Your task to perform on an android device: star an email in the gmail app Image 0: 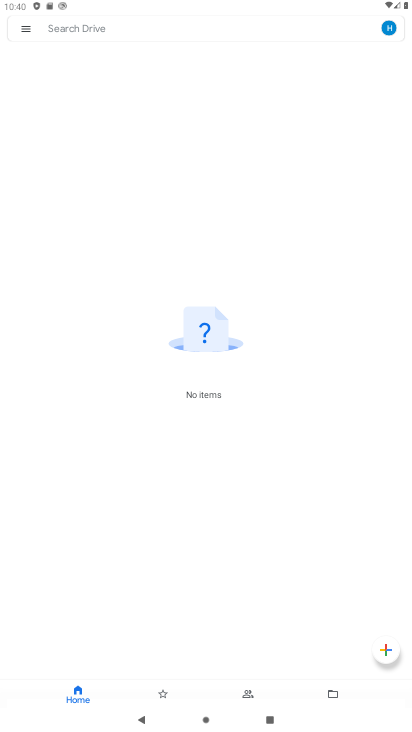
Step 0: press home button
Your task to perform on an android device: star an email in the gmail app Image 1: 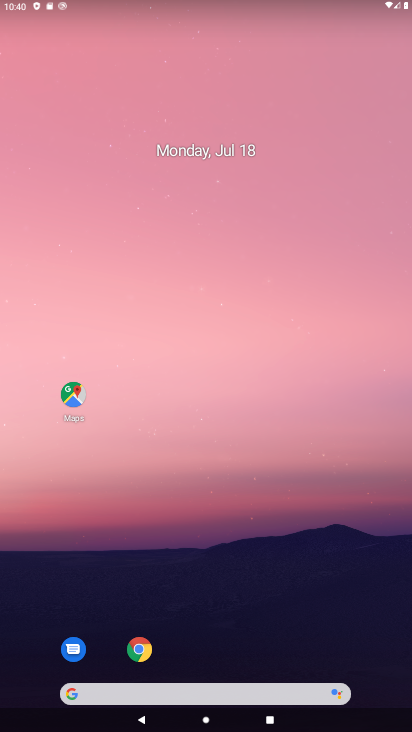
Step 1: drag from (129, 638) to (201, 164)
Your task to perform on an android device: star an email in the gmail app Image 2: 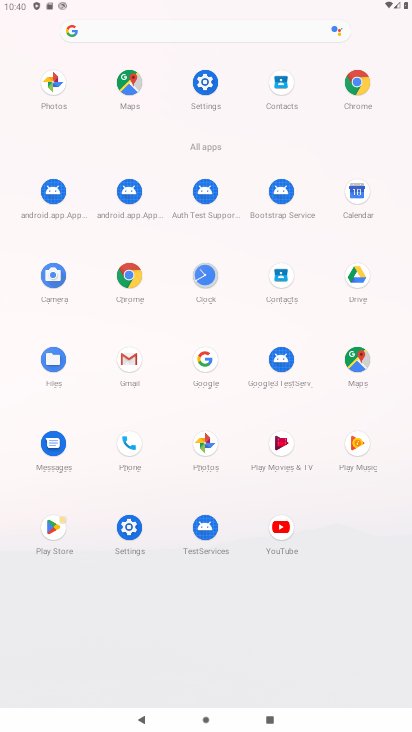
Step 2: click (139, 374)
Your task to perform on an android device: star an email in the gmail app Image 3: 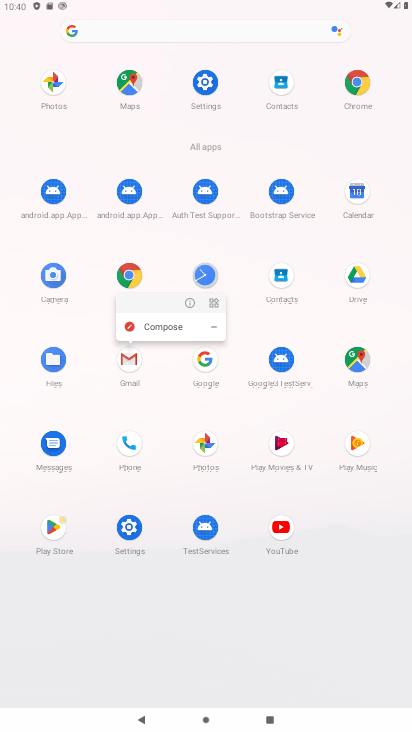
Step 3: click (139, 370)
Your task to perform on an android device: star an email in the gmail app Image 4: 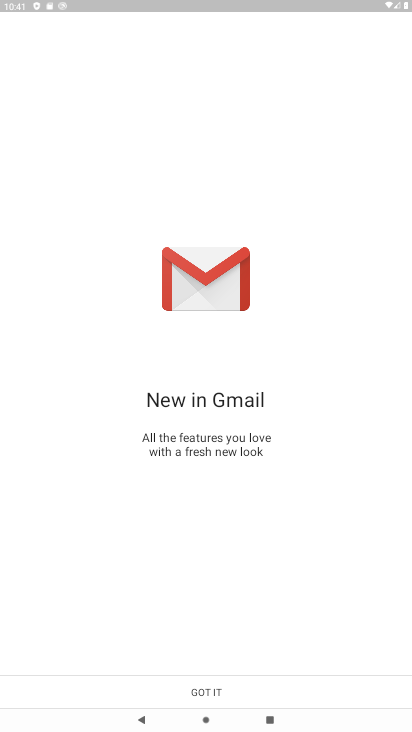
Step 4: click (227, 694)
Your task to perform on an android device: star an email in the gmail app Image 5: 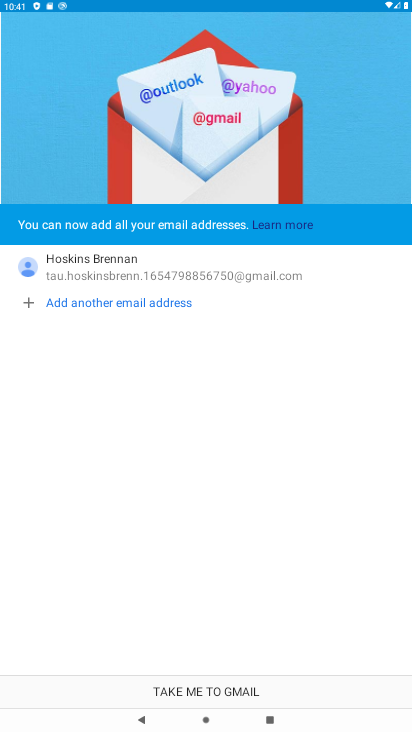
Step 5: click (223, 689)
Your task to perform on an android device: star an email in the gmail app Image 6: 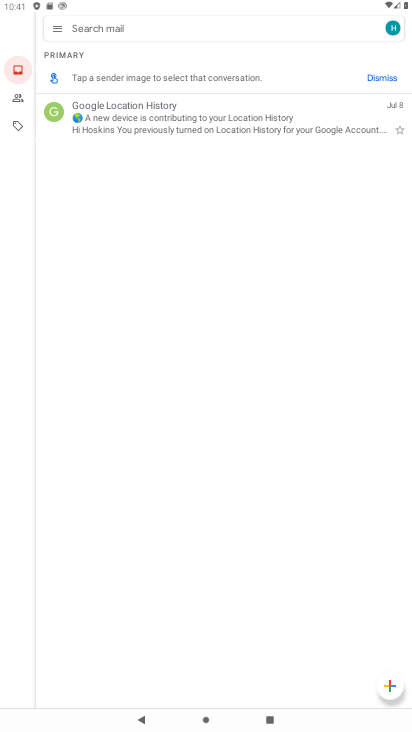
Step 6: click (396, 131)
Your task to perform on an android device: star an email in the gmail app Image 7: 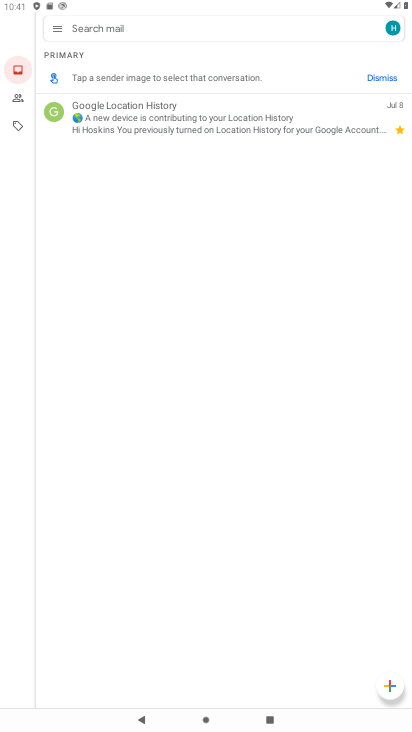
Step 7: task complete